Your task to perform on an android device: uninstall "Cash App" Image 0: 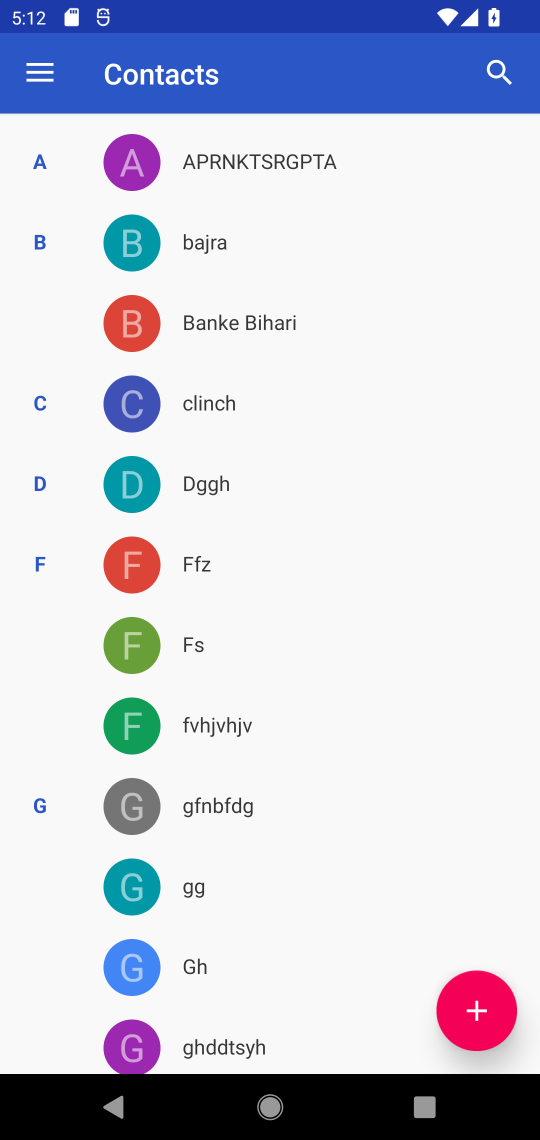
Step 0: press home button
Your task to perform on an android device: uninstall "Cash App" Image 1: 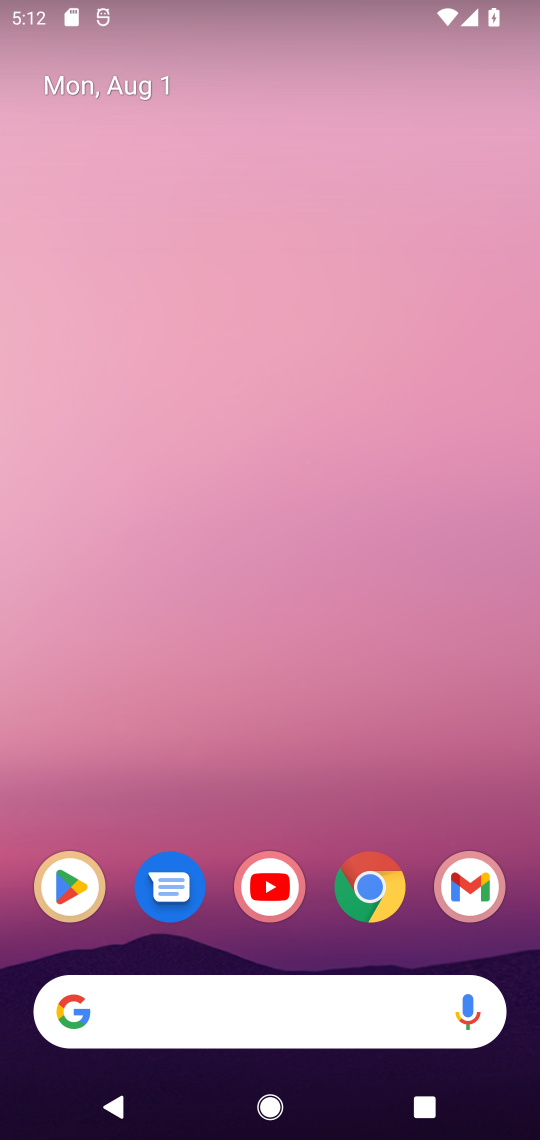
Step 1: click (59, 919)
Your task to perform on an android device: uninstall "Cash App" Image 2: 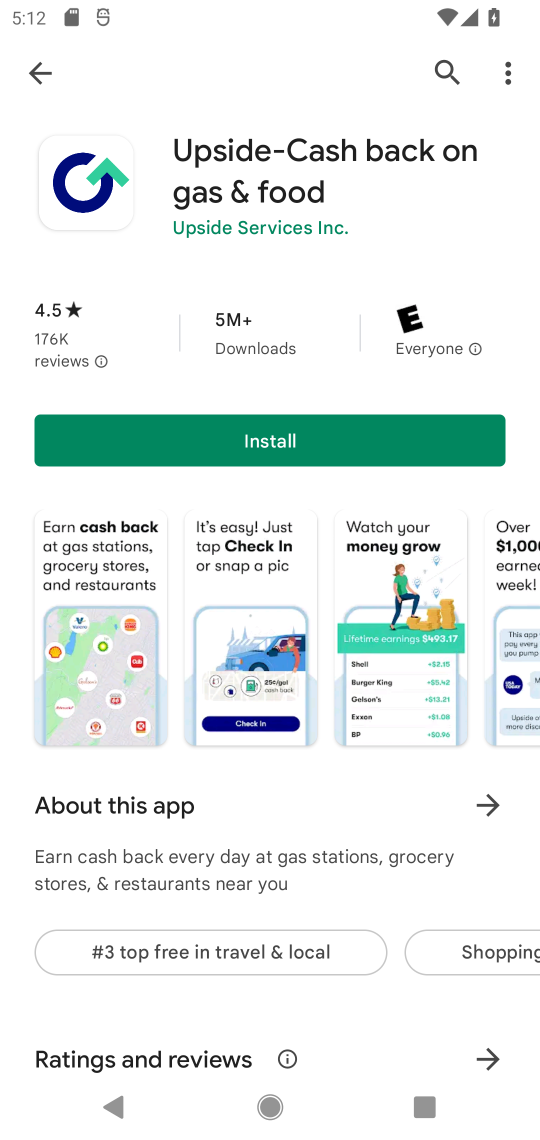
Step 2: click (72, 66)
Your task to perform on an android device: uninstall "Cash App" Image 3: 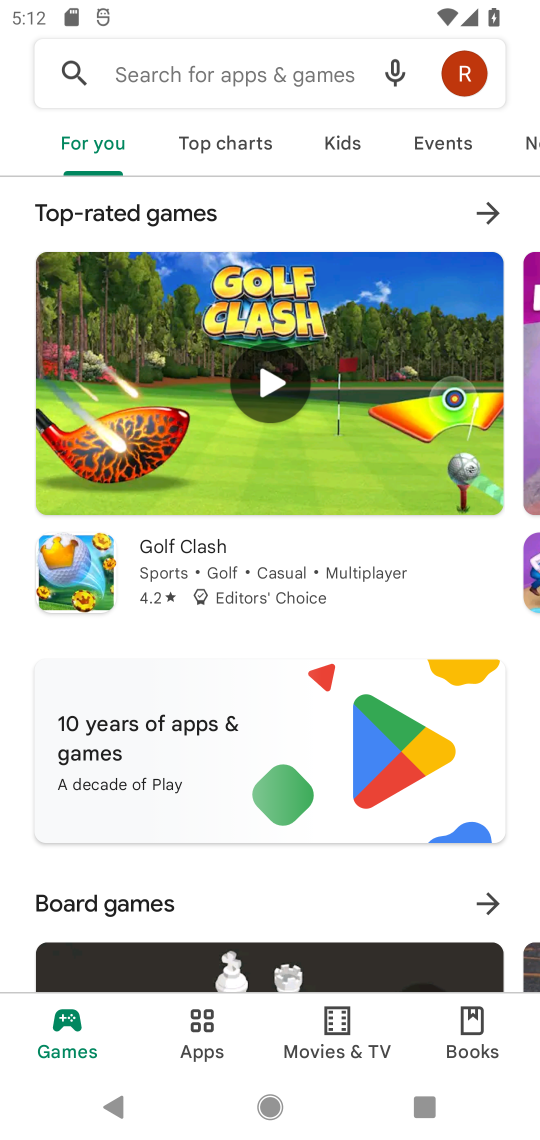
Step 3: click (120, 69)
Your task to perform on an android device: uninstall "Cash App" Image 4: 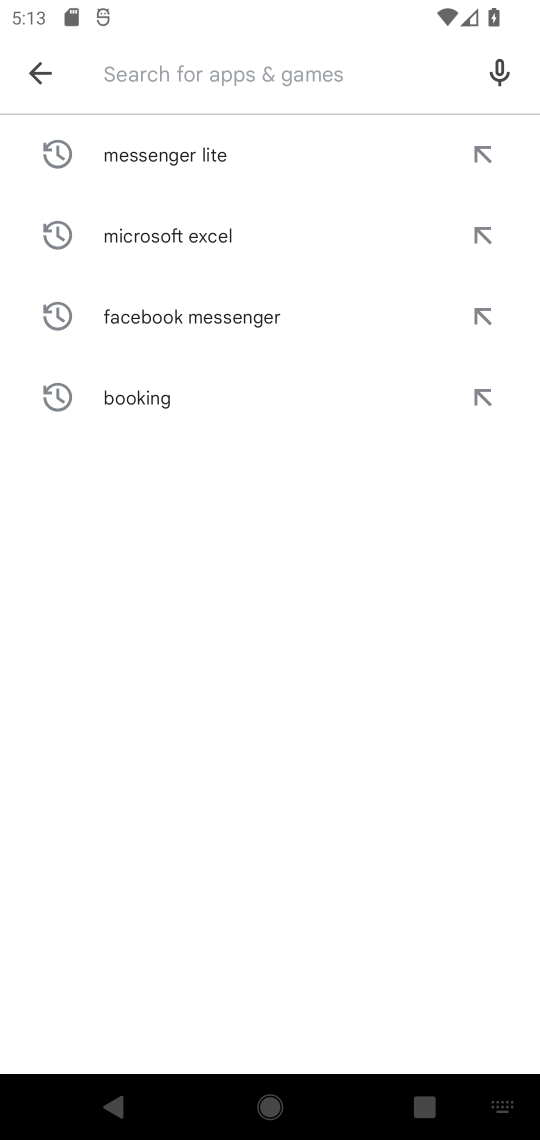
Step 4: type "Cash App"
Your task to perform on an android device: uninstall "Cash App" Image 5: 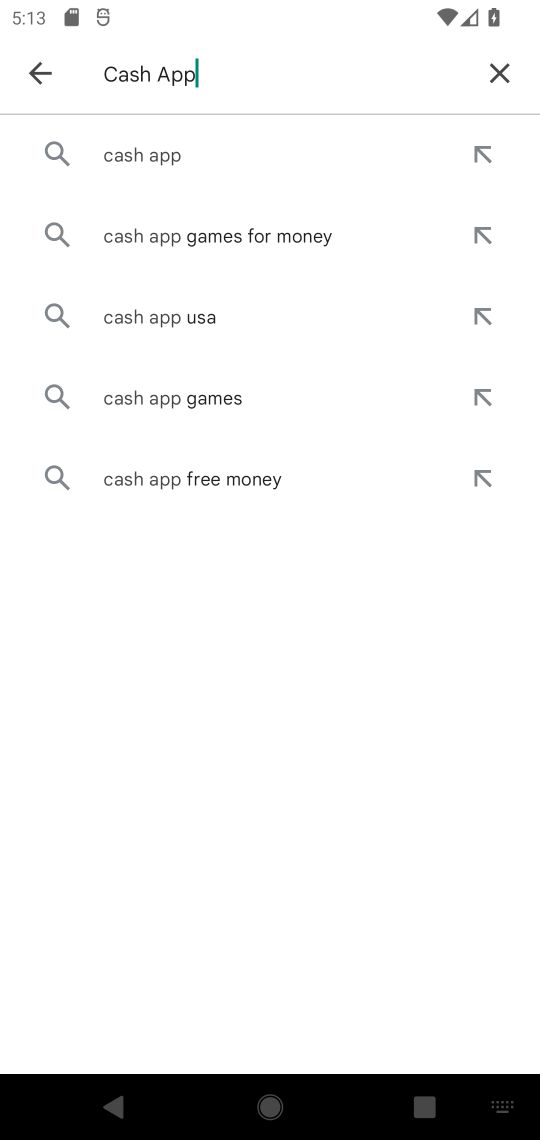
Step 5: click (113, 141)
Your task to perform on an android device: uninstall "Cash App" Image 6: 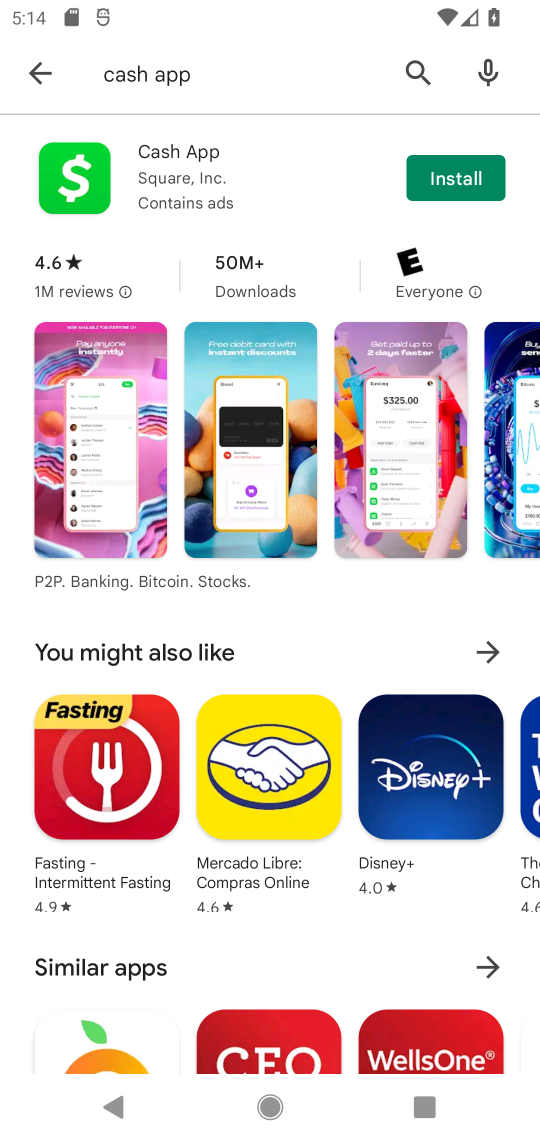
Step 6: click (113, 141)
Your task to perform on an android device: uninstall "Cash App" Image 7: 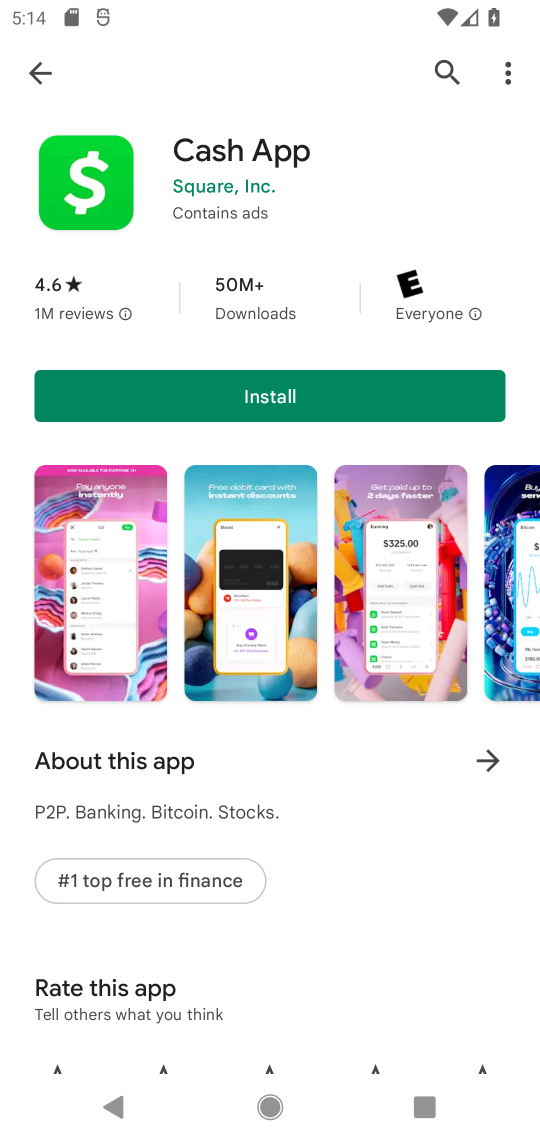
Step 7: task complete